Your task to perform on an android device: Open Android settings Image 0: 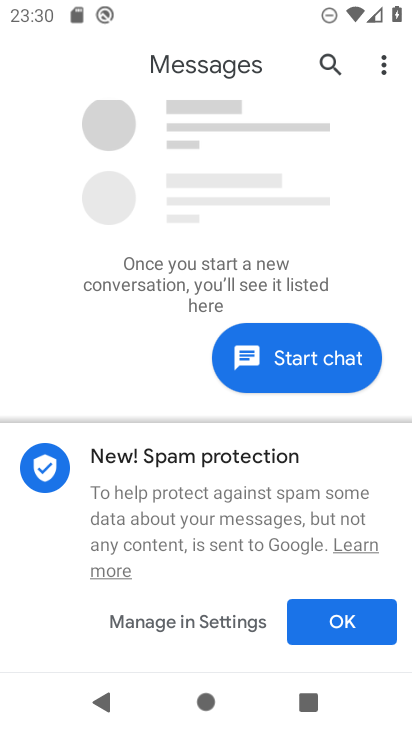
Step 0: press home button
Your task to perform on an android device: Open Android settings Image 1: 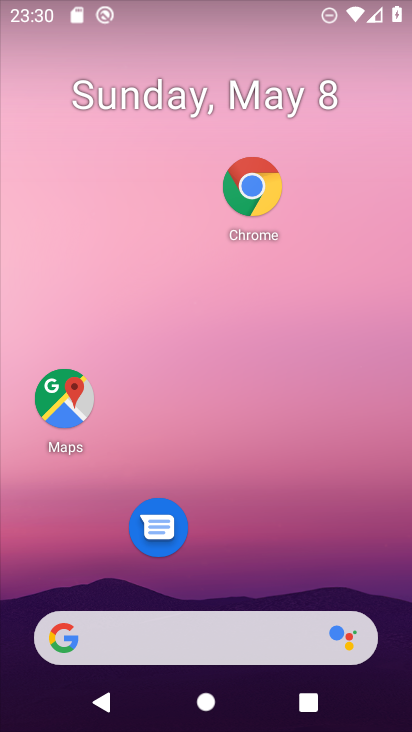
Step 1: drag from (328, 370) to (327, 315)
Your task to perform on an android device: Open Android settings Image 2: 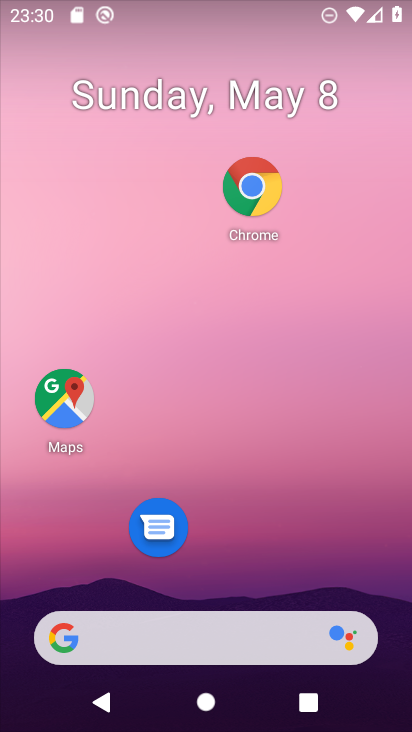
Step 2: drag from (234, 584) to (283, 335)
Your task to perform on an android device: Open Android settings Image 3: 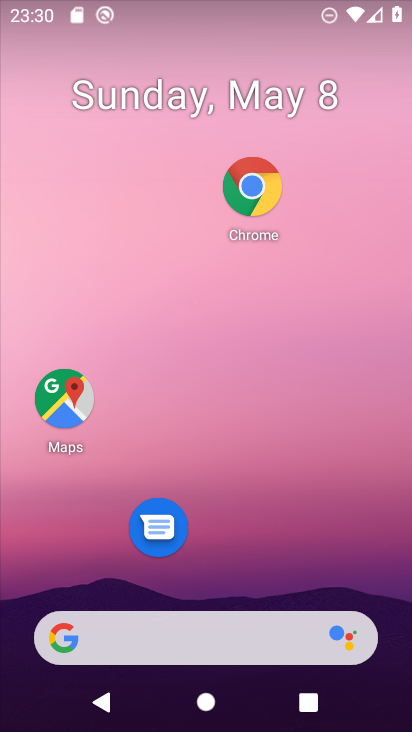
Step 3: drag from (266, 541) to (308, 254)
Your task to perform on an android device: Open Android settings Image 4: 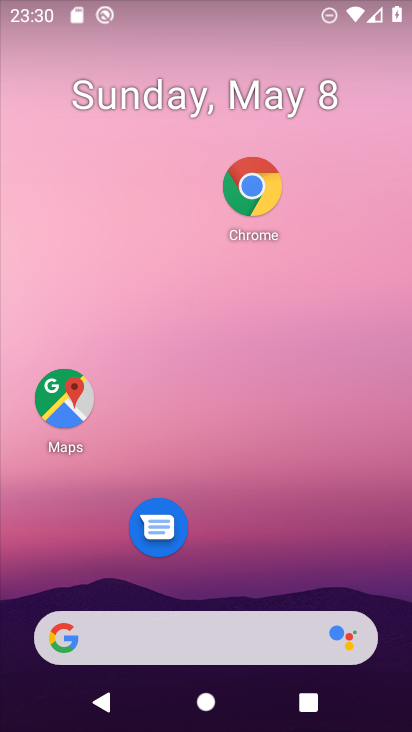
Step 4: drag from (254, 495) to (316, 244)
Your task to perform on an android device: Open Android settings Image 5: 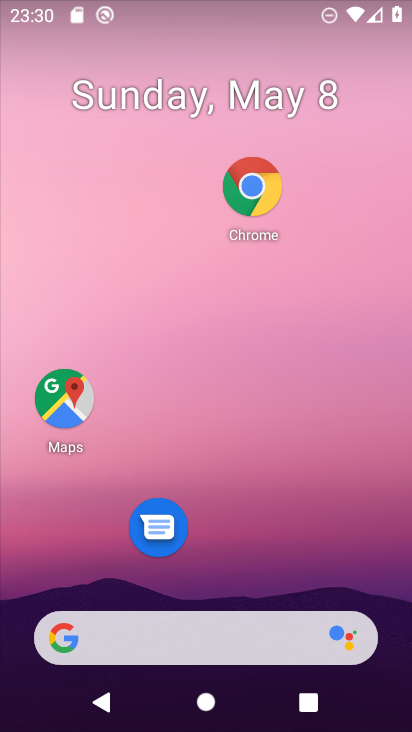
Step 5: drag from (267, 593) to (305, 127)
Your task to perform on an android device: Open Android settings Image 6: 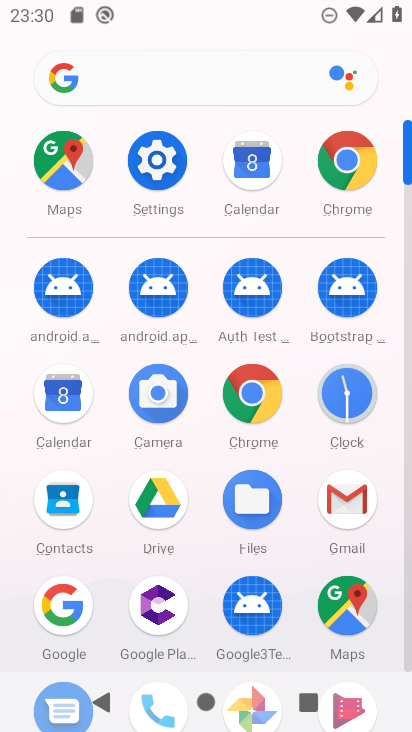
Step 6: click (157, 153)
Your task to perform on an android device: Open Android settings Image 7: 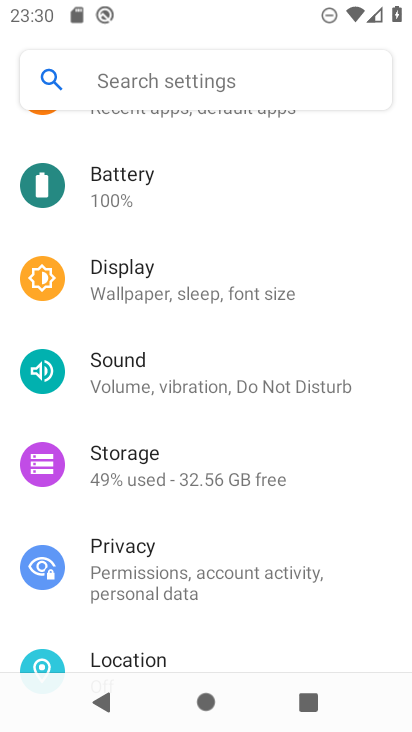
Step 7: drag from (230, 574) to (295, 50)
Your task to perform on an android device: Open Android settings Image 8: 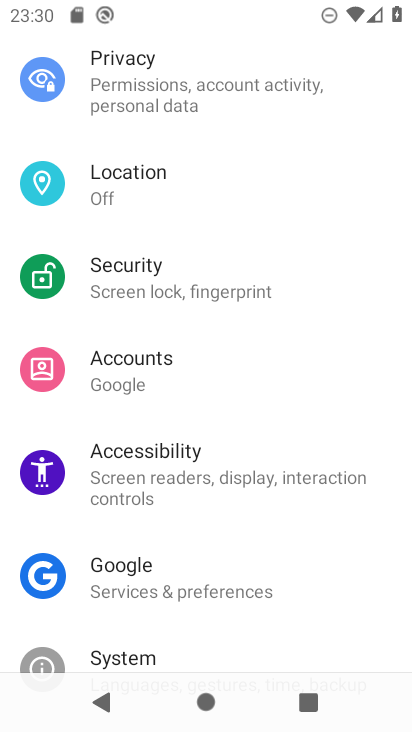
Step 8: drag from (167, 587) to (247, 113)
Your task to perform on an android device: Open Android settings Image 9: 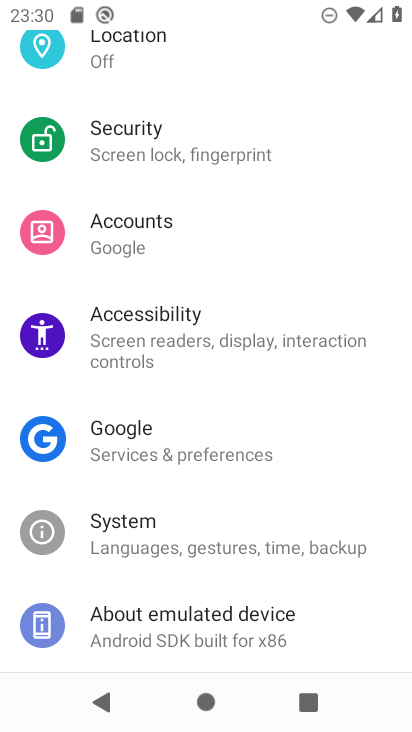
Step 9: click (233, 615)
Your task to perform on an android device: Open Android settings Image 10: 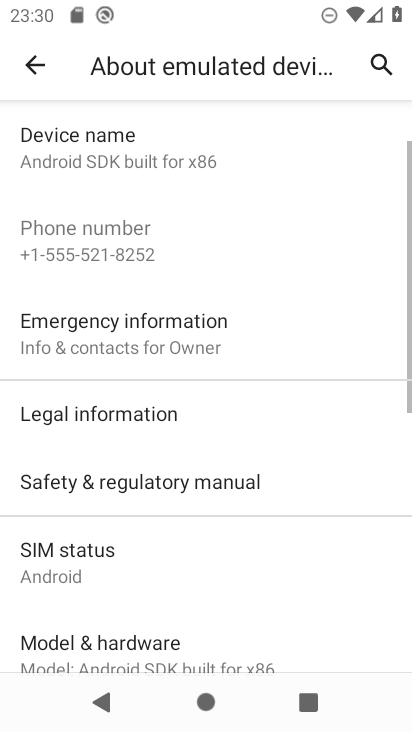
Step 10: click (24, 79)
Your task to perform on an android device: Open Android settings Image 11: 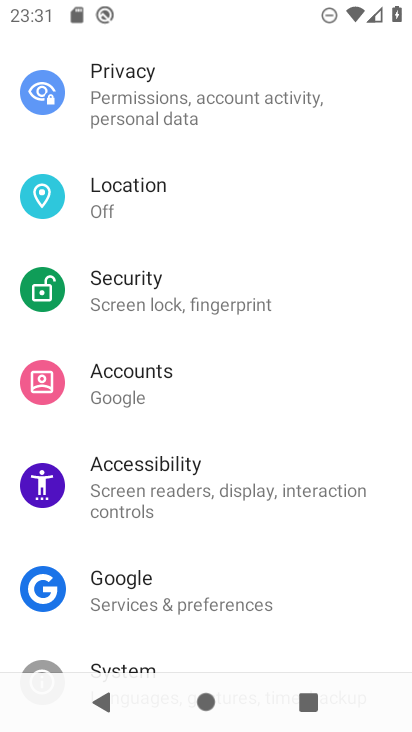
Step 11: task complete